Your task to perform on an android device: set the timer Image 0: 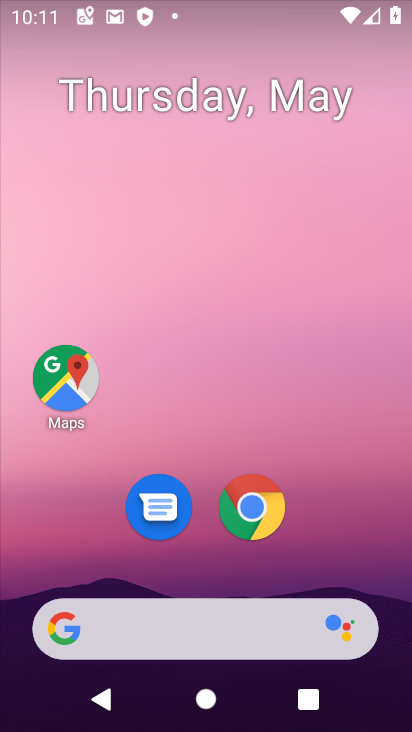
Step 0: drag from (154, 730) to (154, 99)
Your task to perform on an android device: set the timer Image 1: 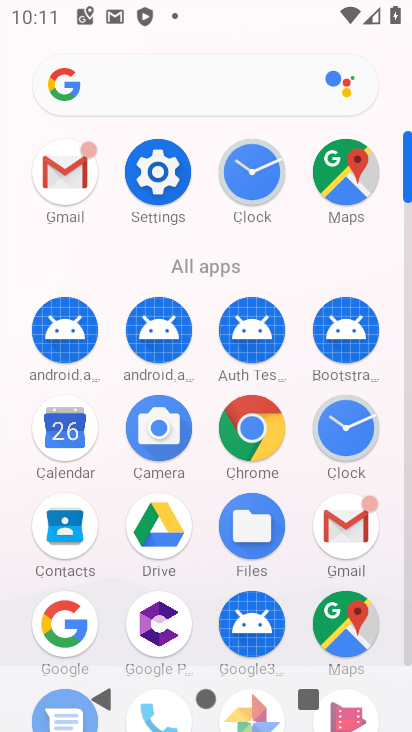
Step 1: click (241, 187)
Your task to perform on an android device: set the timer Image 2: 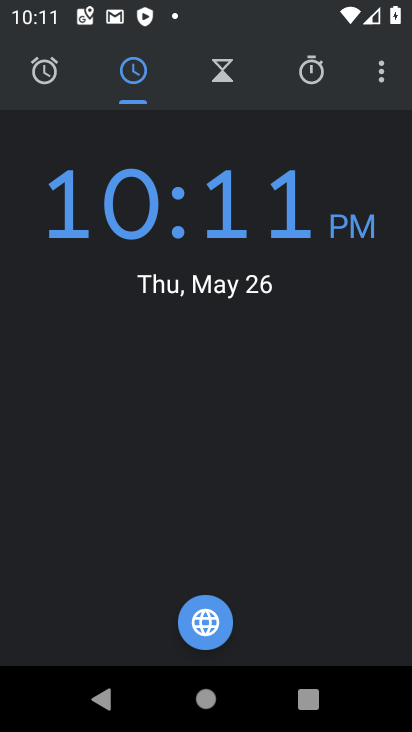
Step 2: click (229, 81)
Your task to perform on an android device: set the timer Image 3: 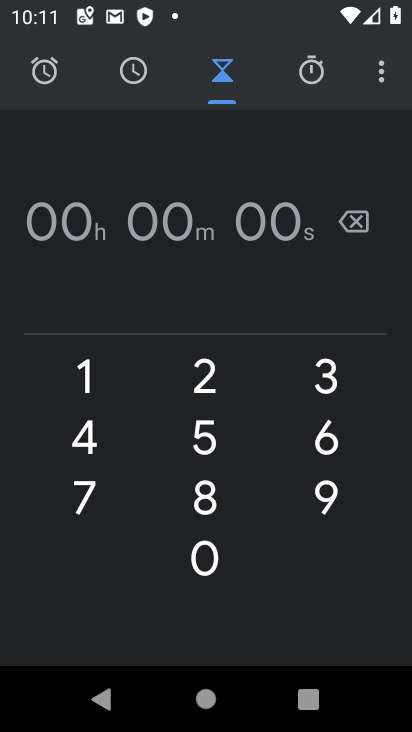
Step 3: click (92, 505)
Your task to perform on an android device: set the timer Image 4: 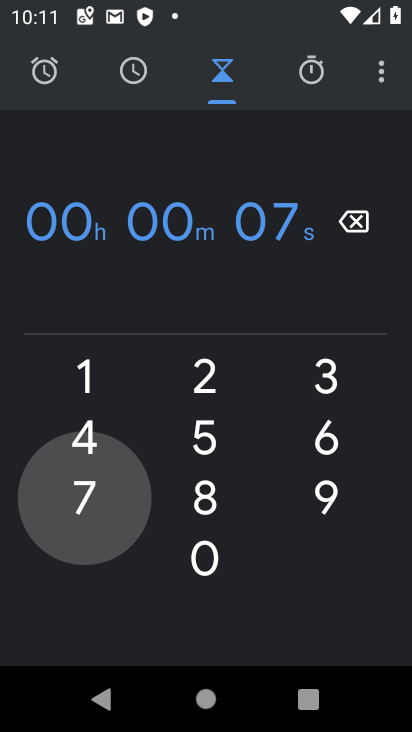
Step 4: click (185, 504)
Your task to perform on an android device: set the timer Image 5: 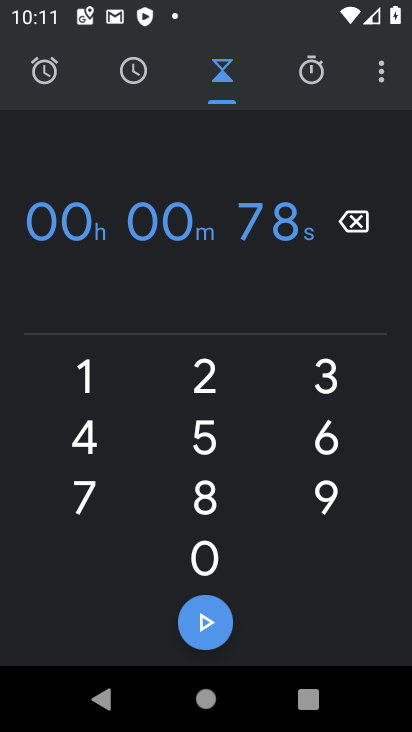
Step 5: click (204, 629)
Your task to perform on an android device: set the timer Image 6: 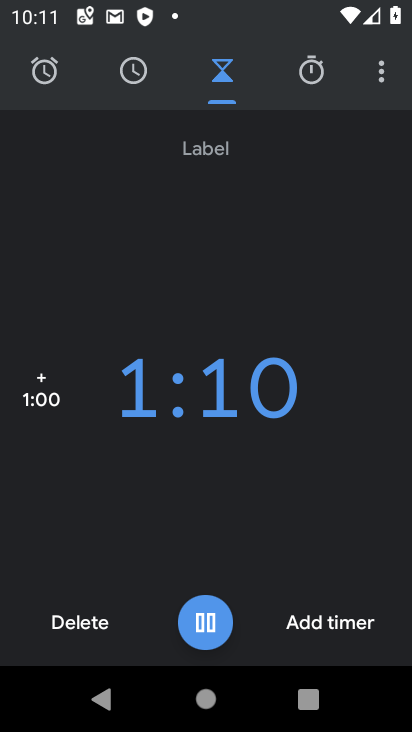
Step 6: click (204, 629)
Your task to perform on an android device: set the timer Image 7: 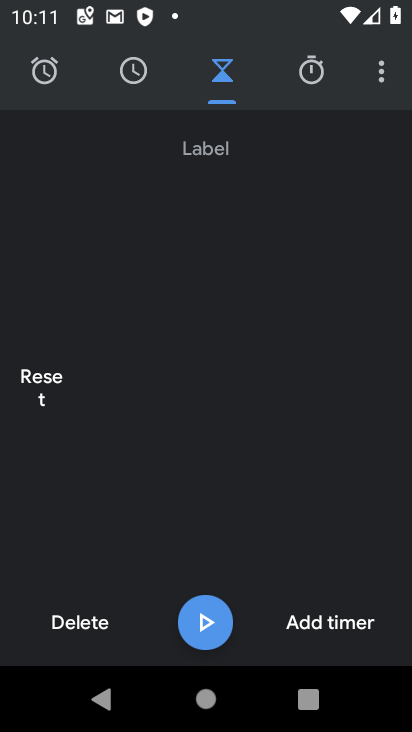
Step 7: task complete